Your task to perform on an android device: set default search engine in the chrome app Image 0: 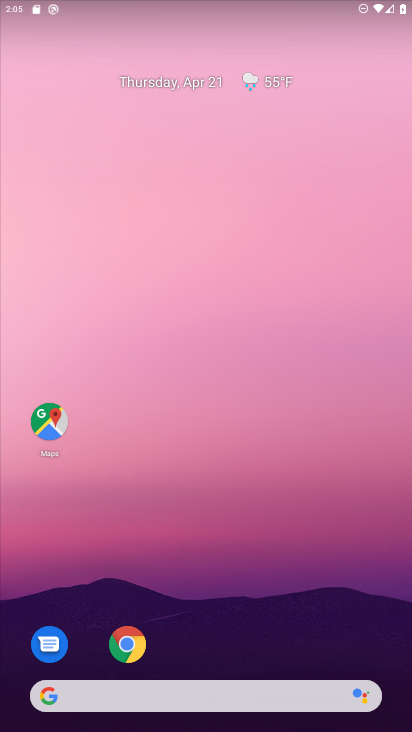
Step 0: drag from (256, 614) to (249, 227)
Your task to perform on an android device: set default search engine in the chrome app Image 1: 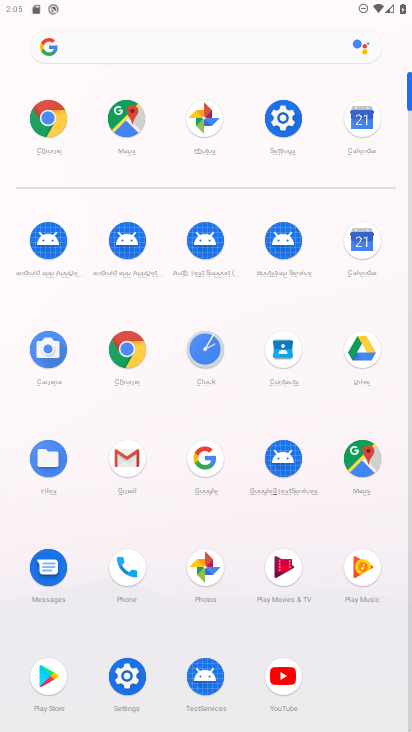
Step 1: click (46, 131)
Your task to perform on an android device: set default search engine in the chrome app Image 2: 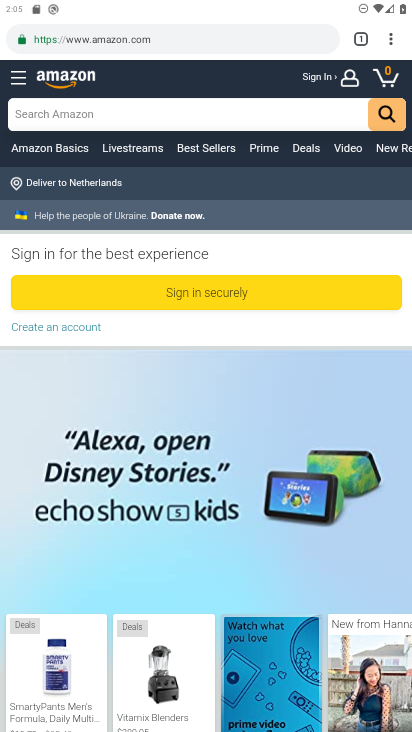
Step 2: drag from (387, 55) to (330, 521)
Your task to perform on an android device: set default search engine in the chrome app Image 3: 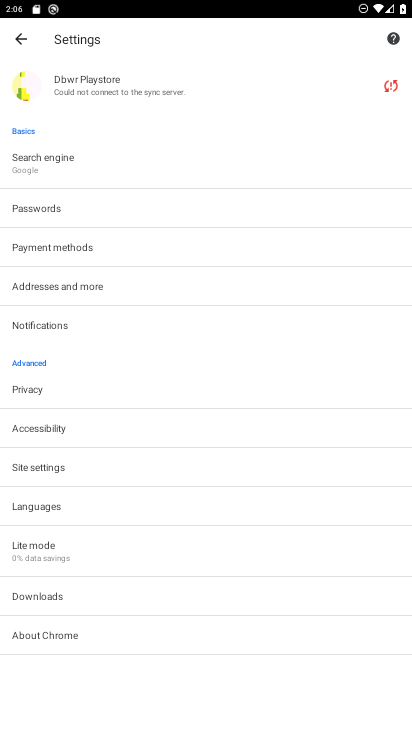
Step 3: click (123, 172)
Your task to perform on an android device: set default search engine in the chrome app Image 4: 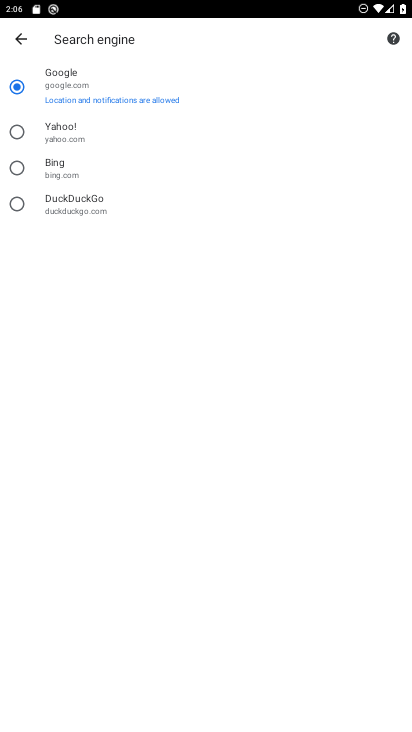
Step 4: click (122, 173)
Your task to perform on an android device: set default search engine in the chrome app Image 5: 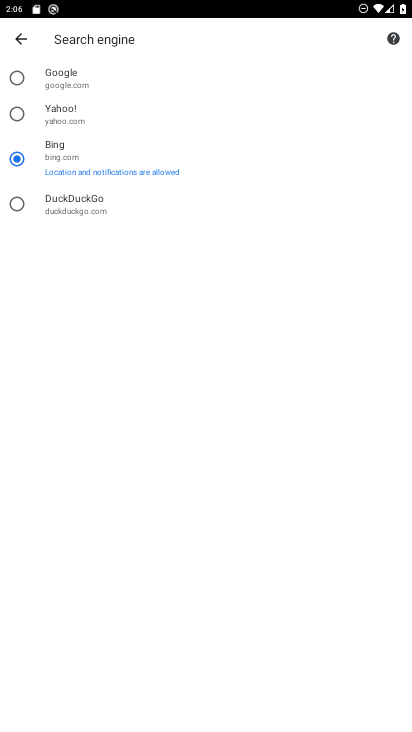
Step 5: task complete